Your task to perform on an android device: Show me the alarms in the clock app Image 0: 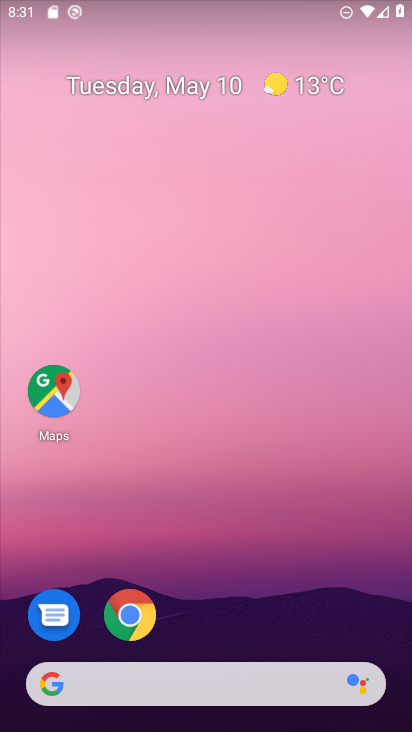
Step 0: drag from (211, 548) to (209, 34)
Your task to perform on an android device: Show me the alarms in the clock app Image 1: 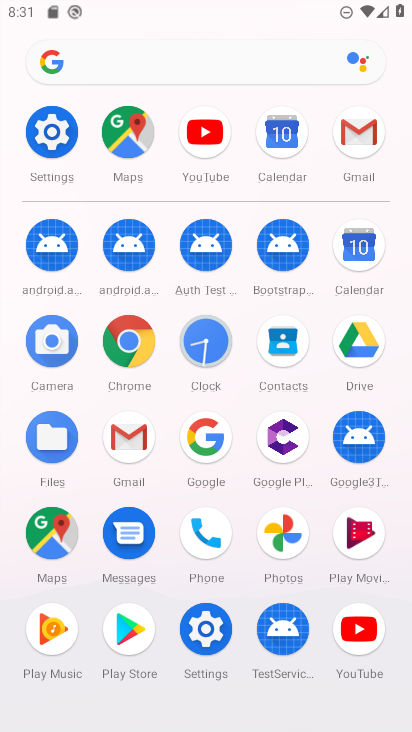
Step 1: click (204, 346)
Your task to perform on an android device: Show me the alarms in the clock app Image 2: 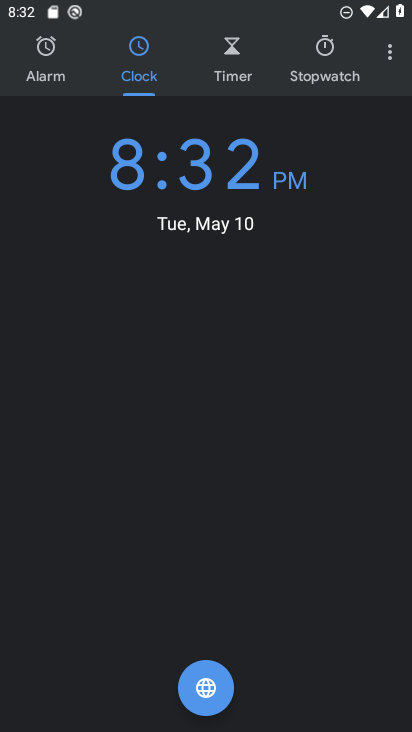
Step 2: click (48, 58)
Your task to perform on an android device: Show me the alarms in the clock app Image 3: 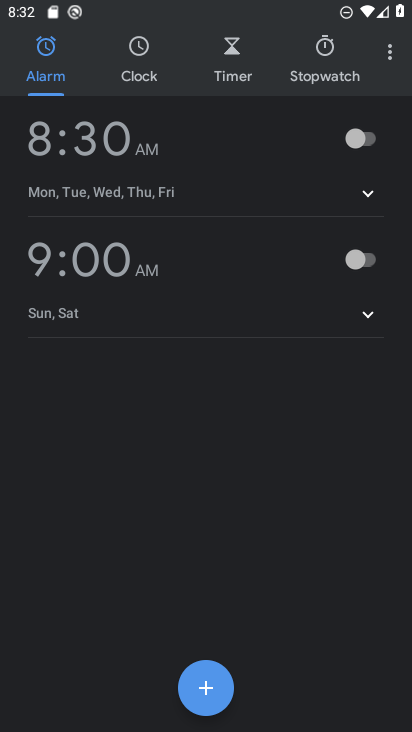
Step 3: task complete